Your task to perform on an android device: Open Yahoo.com Image 0: 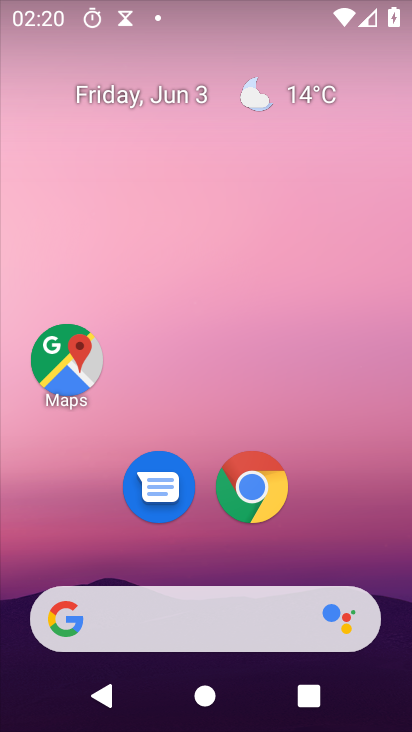
Step 0: click (266, 477)
Your task to perform on an android device: Open Yahoo.com Image 1: 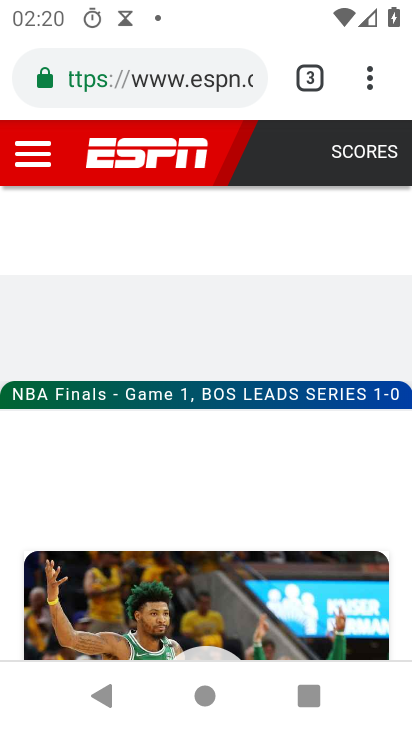
Step 1: click (319, 89)
Your task to perform on an android device: Open Yahoo.com Image 2: 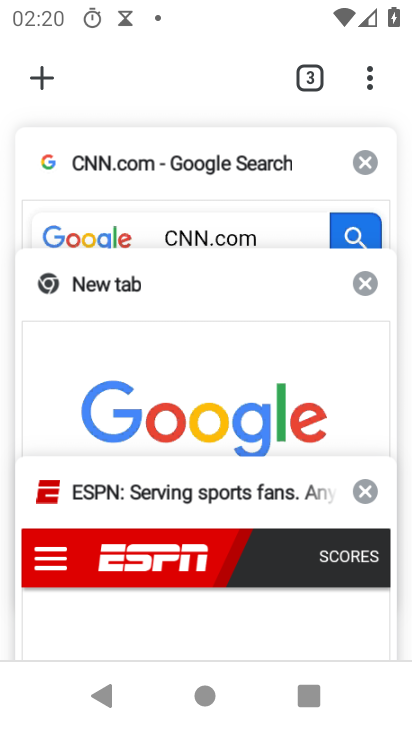
Step 2: click (20, 65)
Your task to perform on an android device: Open Yahoo.com Image 3: 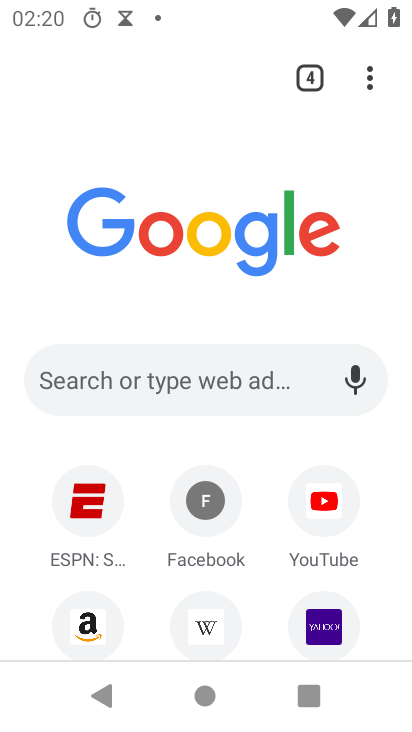
Step 3: drag from (277, 433) to (232, 166)
Your task to perform on an android device: Open Yahoo.com Image 4: 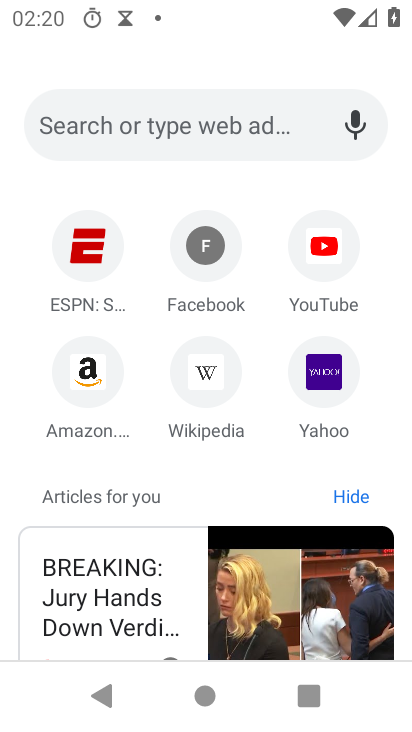
Step 4: click (323, 373)
Your task to perform on an android device: Open Yahoo.com Image 5: 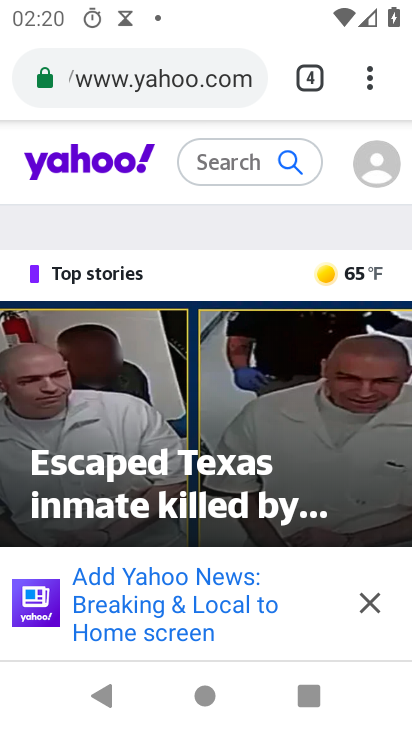
Step 5: task complete